Your task to perform on an android device: Go to Reddit.com Image 0: 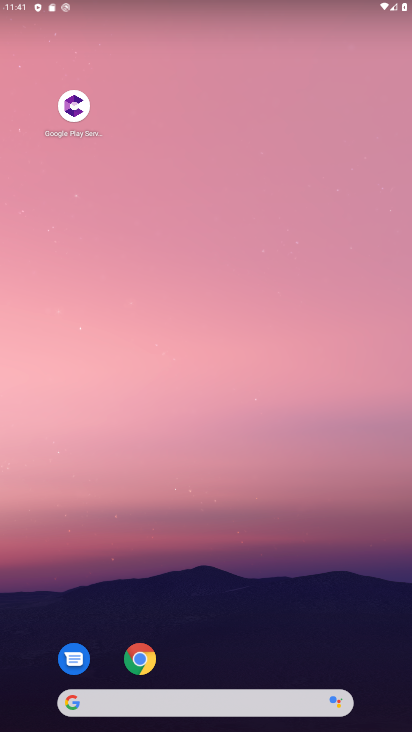
Step 0: click (137, 703)
Your task to perform on an android device: Go to Reddit.com Image 1: 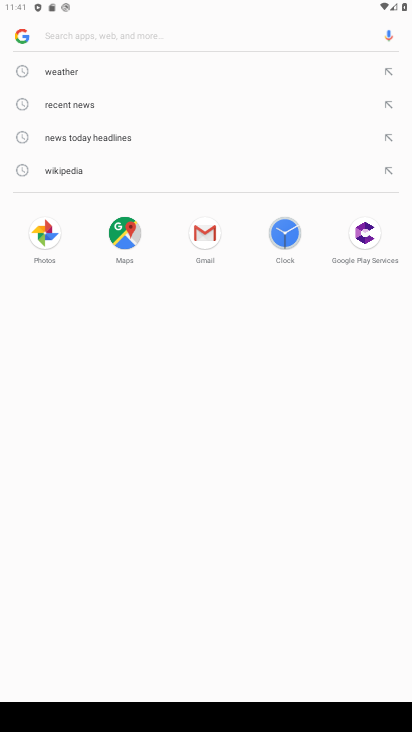
Step 1: type "Reddit.com"
Your task to perform on an android device: Go to Reddit.com Image 2: 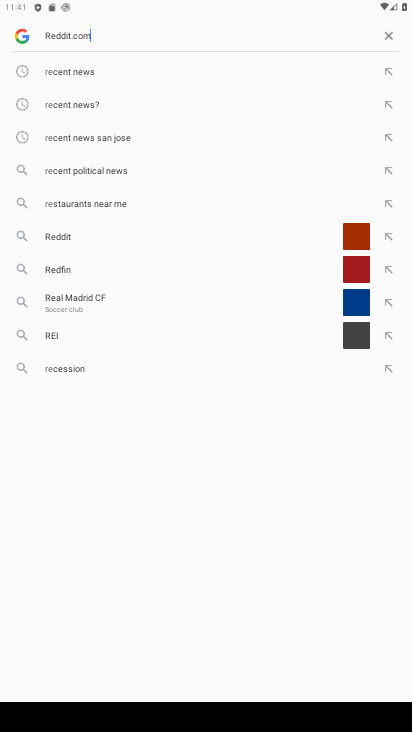
Step 2: press enter
Your task to perform on an android device: Go to Reddit.com Image 3: 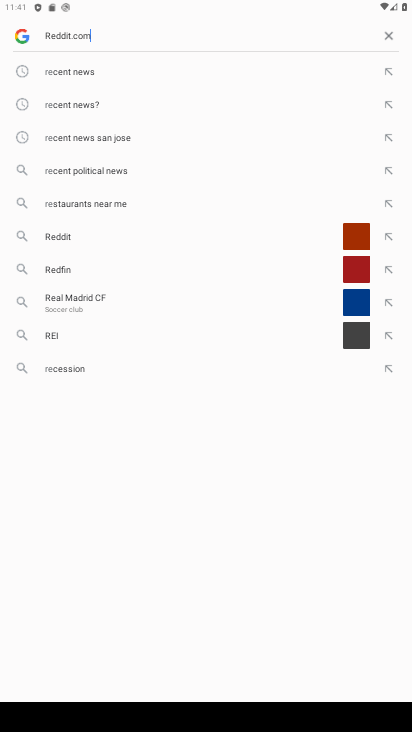
Step 3: type ""
Your task to perform on an android device: Go to Reddit.com Image 4: 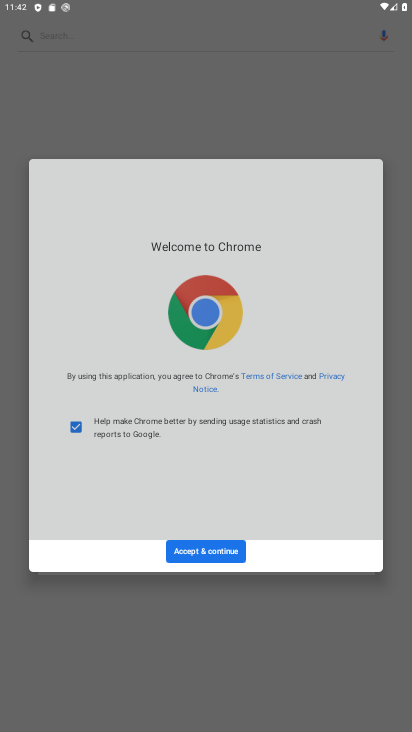
Step 4: click (186, 549)
Your task to perform on an android device: Go to Reddit.com Image 5: 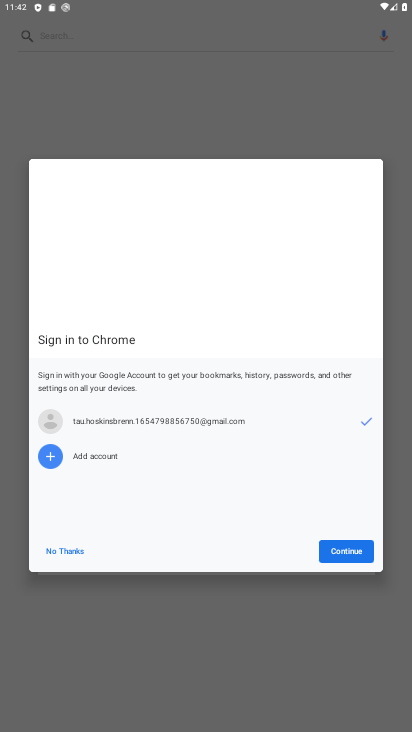
Step 5: click (352, 551)
Your task to perform on an android device: Go to Reddit.com Image 6: 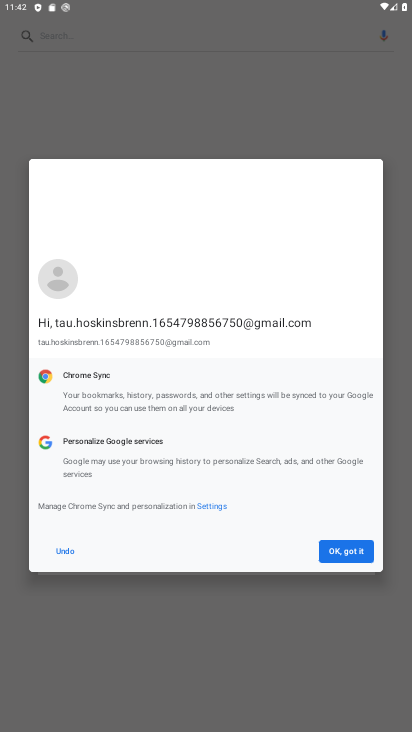
Step 6: click (338, 553)
Your task to perform on an android device: Go to Reddit.com Image 7: 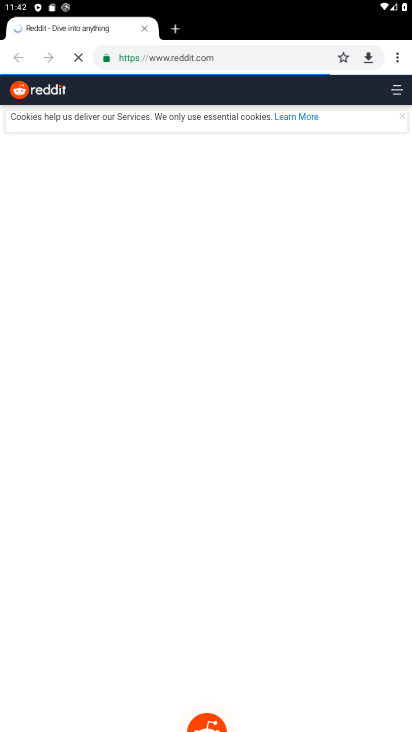
Step 7: task complete